Your task to perform on an android device: read, delete, or share a saved page in the chrome app Image 0: 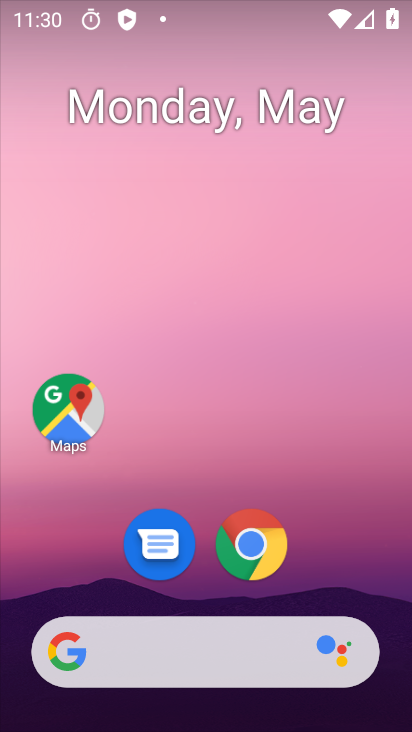
Step 0: click (274, 551)
Your task to perform on an android device: read, delete, or share a saved page in the chrome app Image 1: 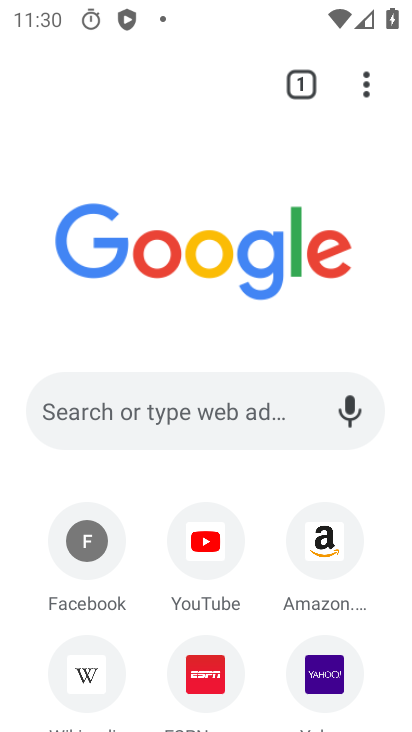
Step 1: drag from (367, 77) to (245, 537)
Your task to perform on an android device: read, delete, or share a saved page in the chrome app Image 2: 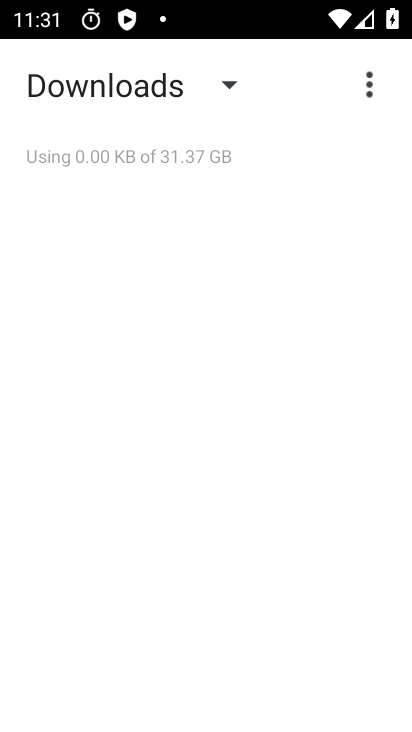
Step 2: click (211, 85)
Your task to perform on an android device: read, delete, or share a saved page in the chrome app Image 3: 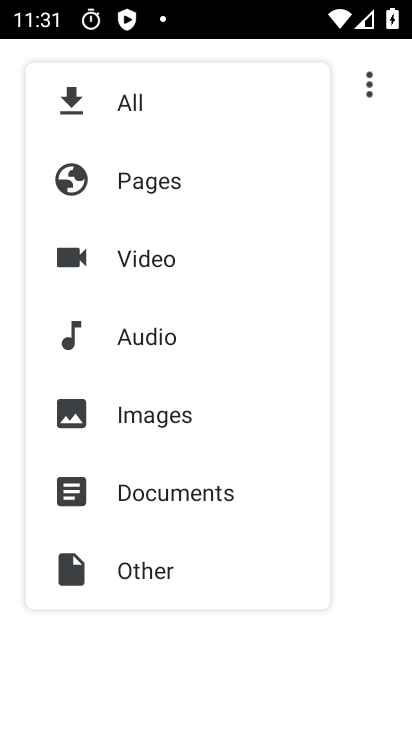
Step 3: click (169, 185)
Your task to perform on an android device: read, delete, or share a saved page in the chrome app Image 4: 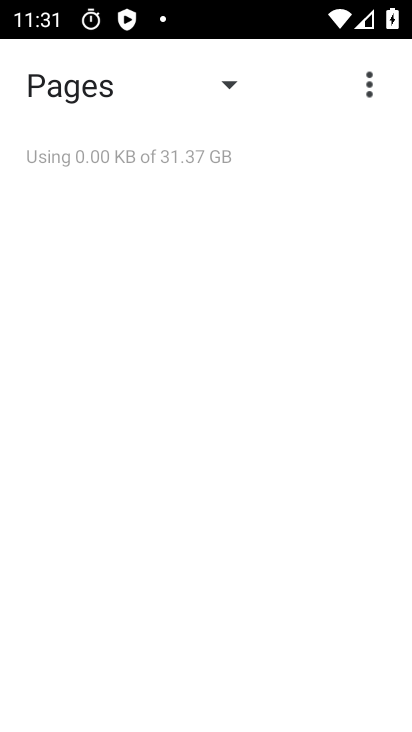
Step 4: task complete